Your task to perform on an android device: Add razer thresher to the cart on costco Image 0: 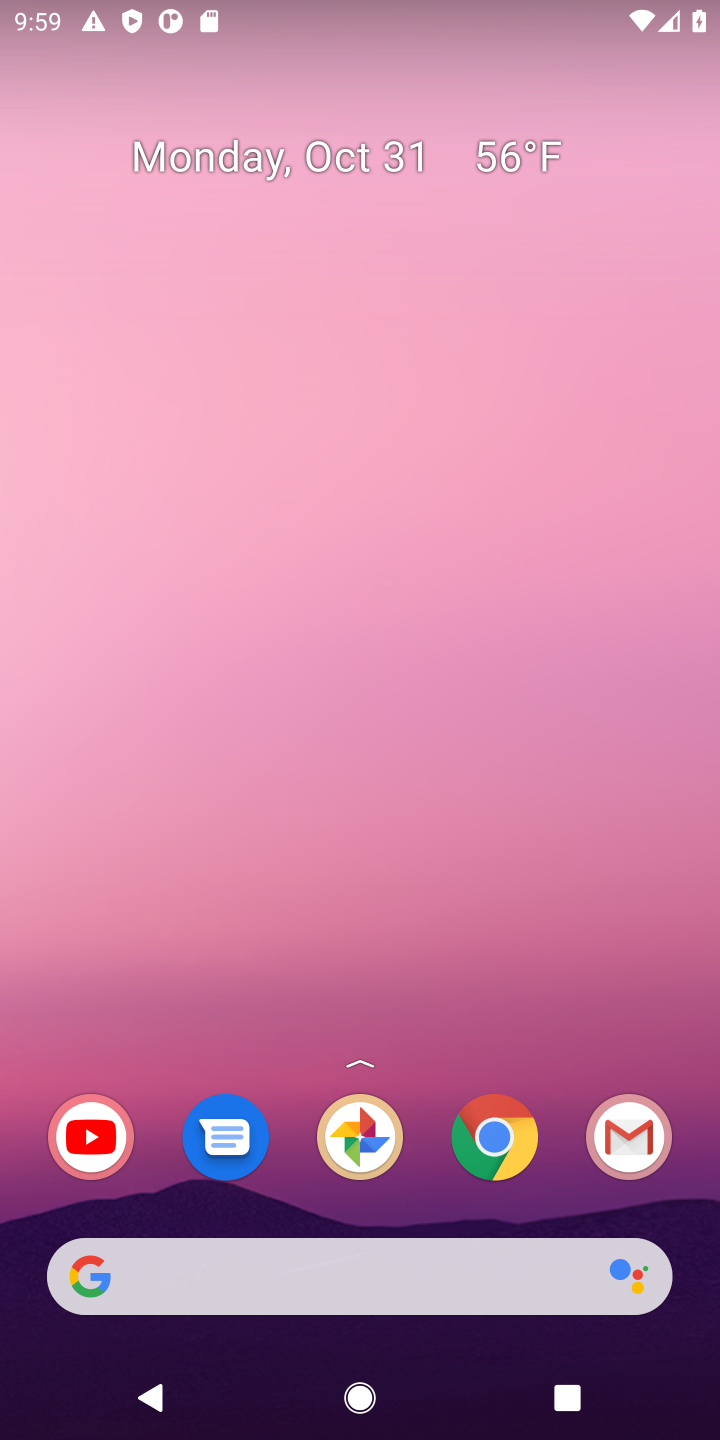
Step 0: click (497, 1140)
Your task to perform on an android device: Add razer thresher to the cart on costco Image 1: 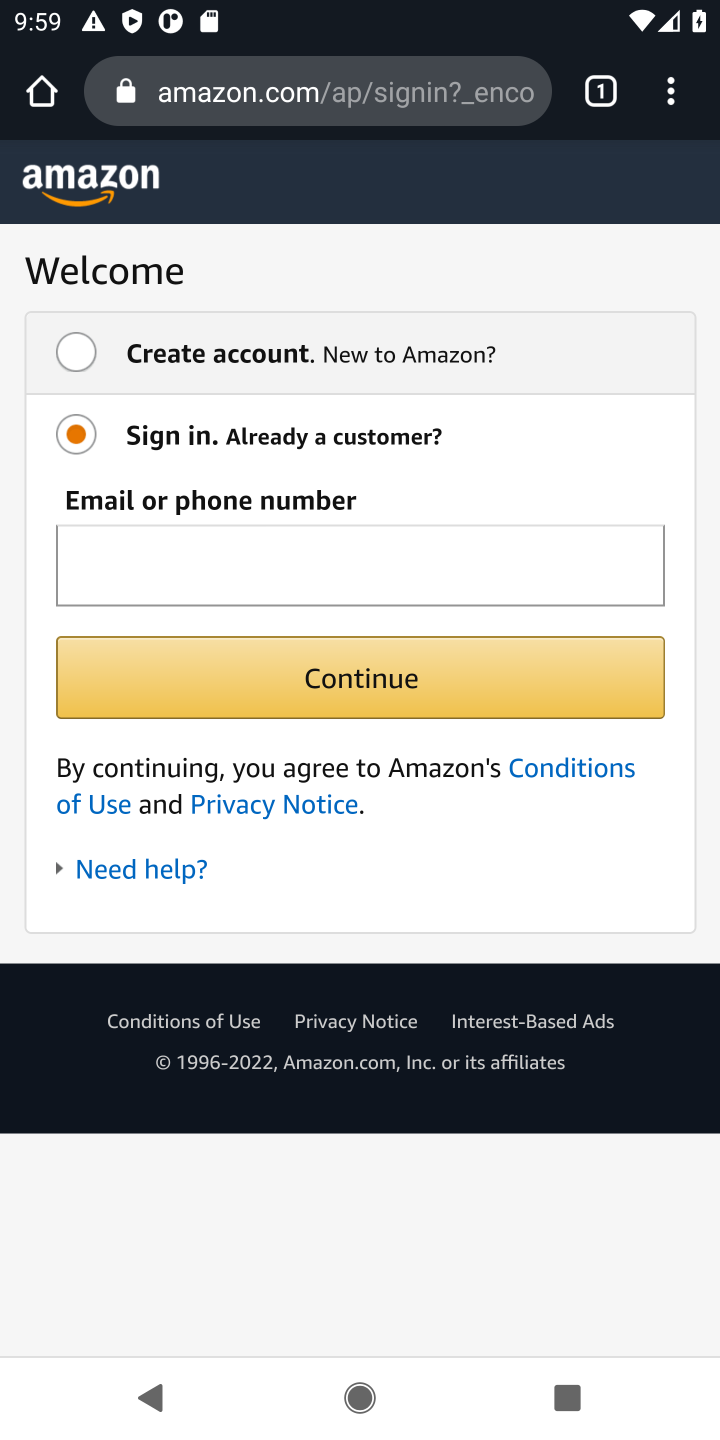
Step 1: click (427, 105)
Your task to perform on an android device: Add razer thresher to the cart on costco Image 2: 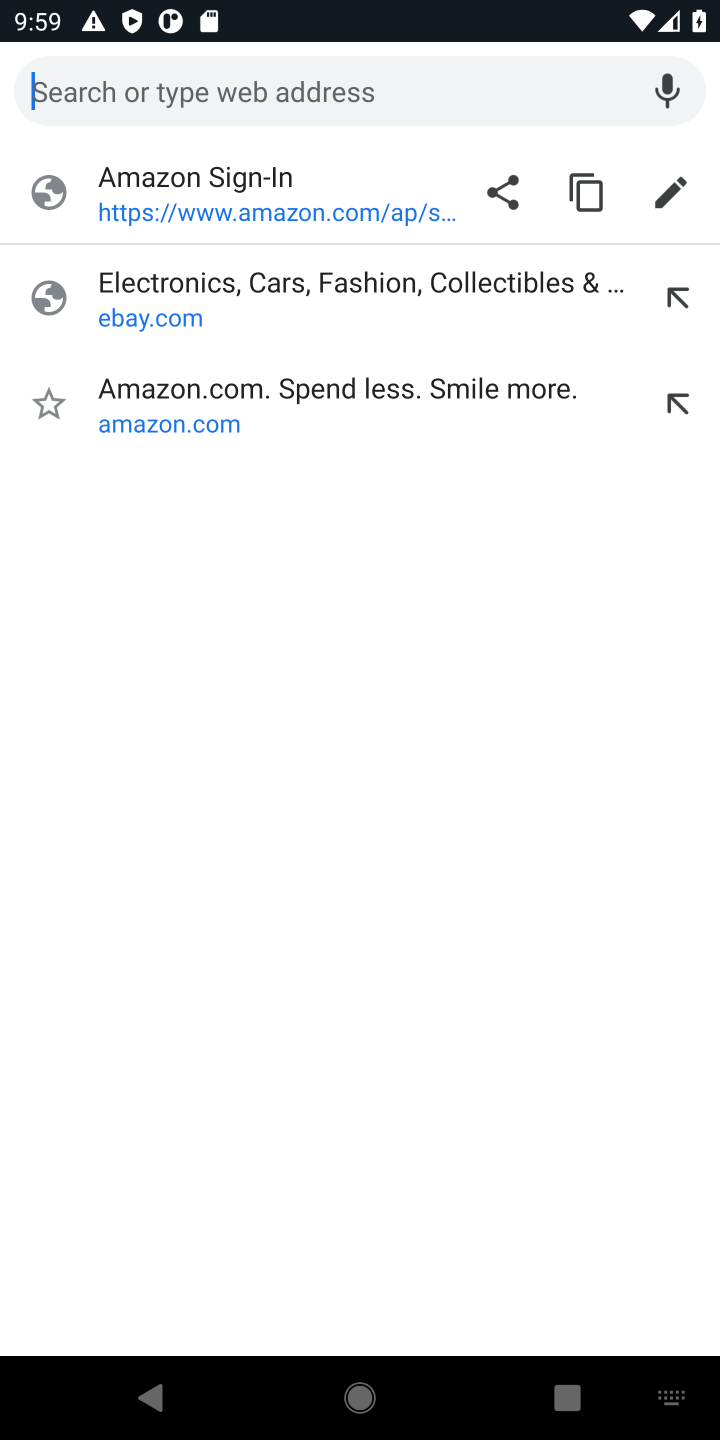
Step 2: type "coctco"
Your task to perform on an android device: Add razer thresher to the cart on costco Image 3: 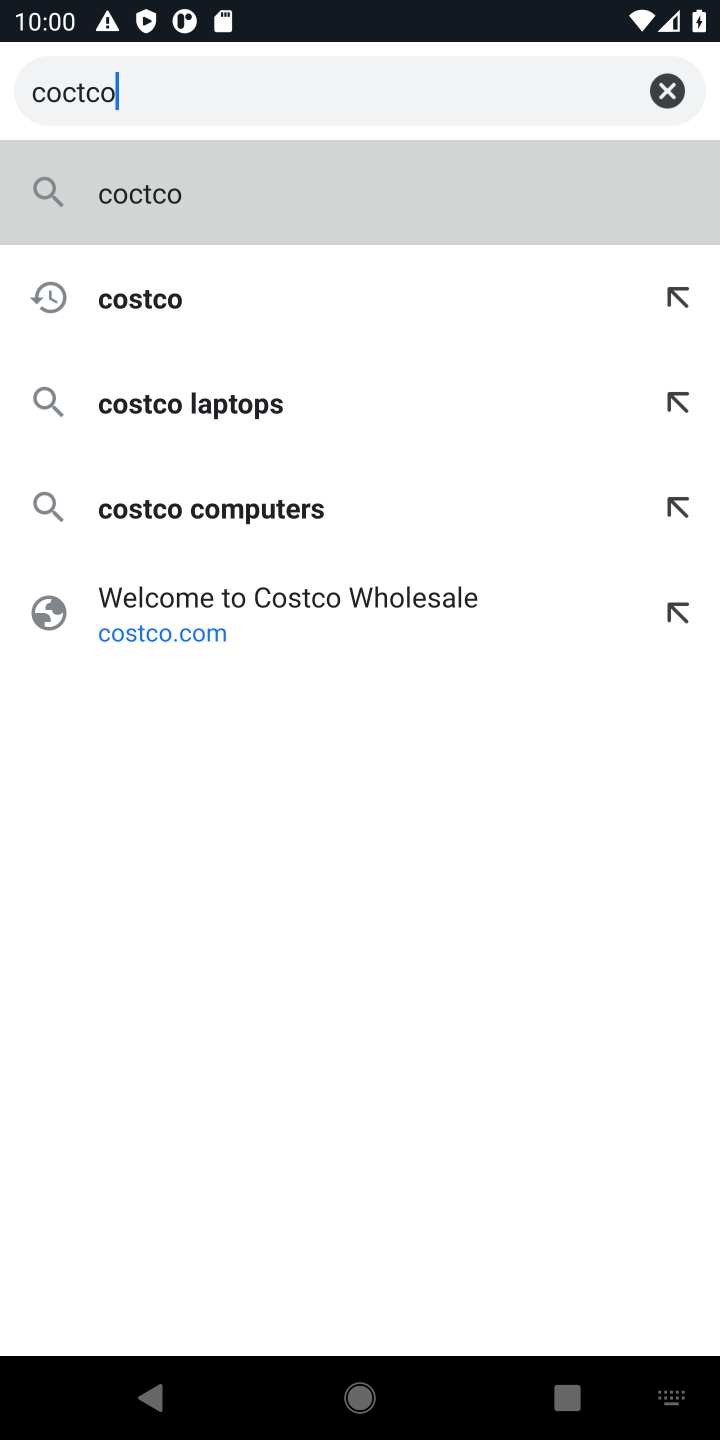
Step 3: click (671, 99)
Your task to perform on an android device: Add razer thresher to the cart on costco Image 4: 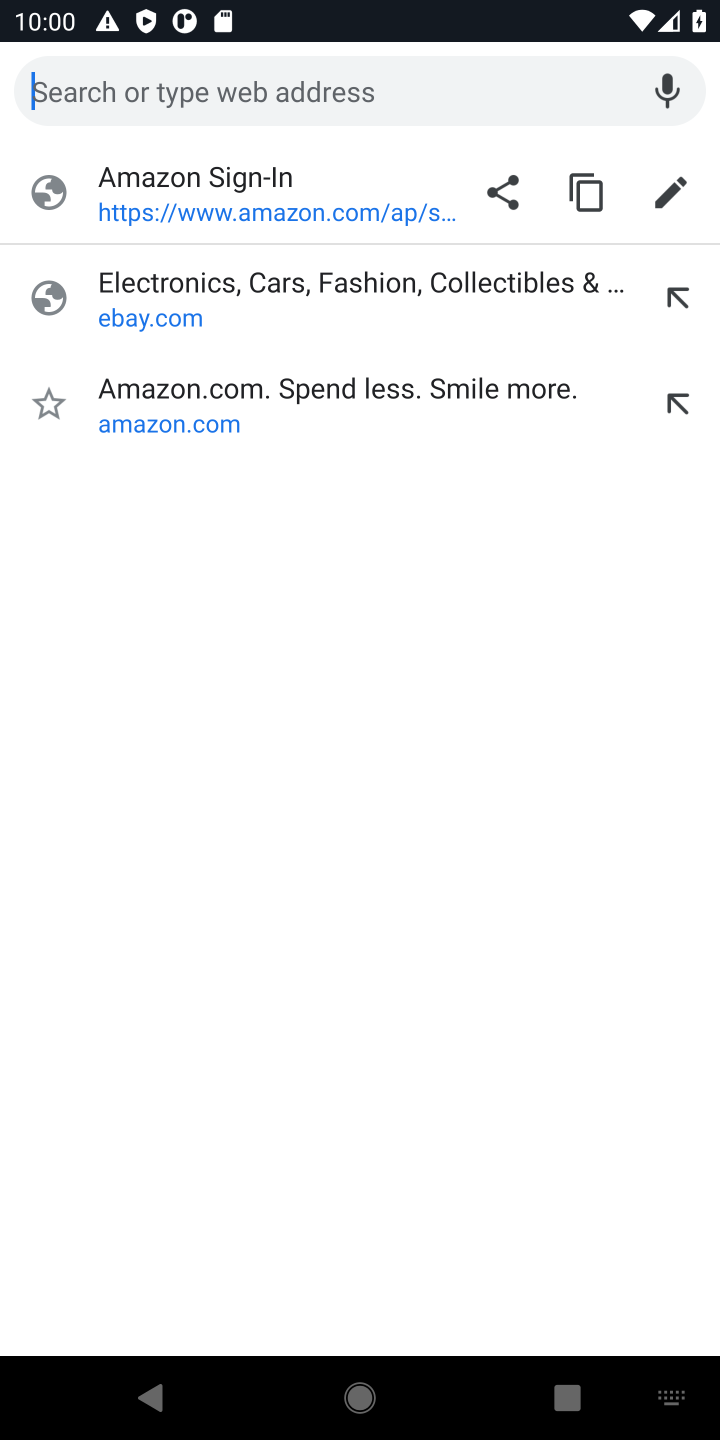
Step 4: type "costco"
Your task to perform on an android device: Add razer thresher to the cart on costco Image 5: 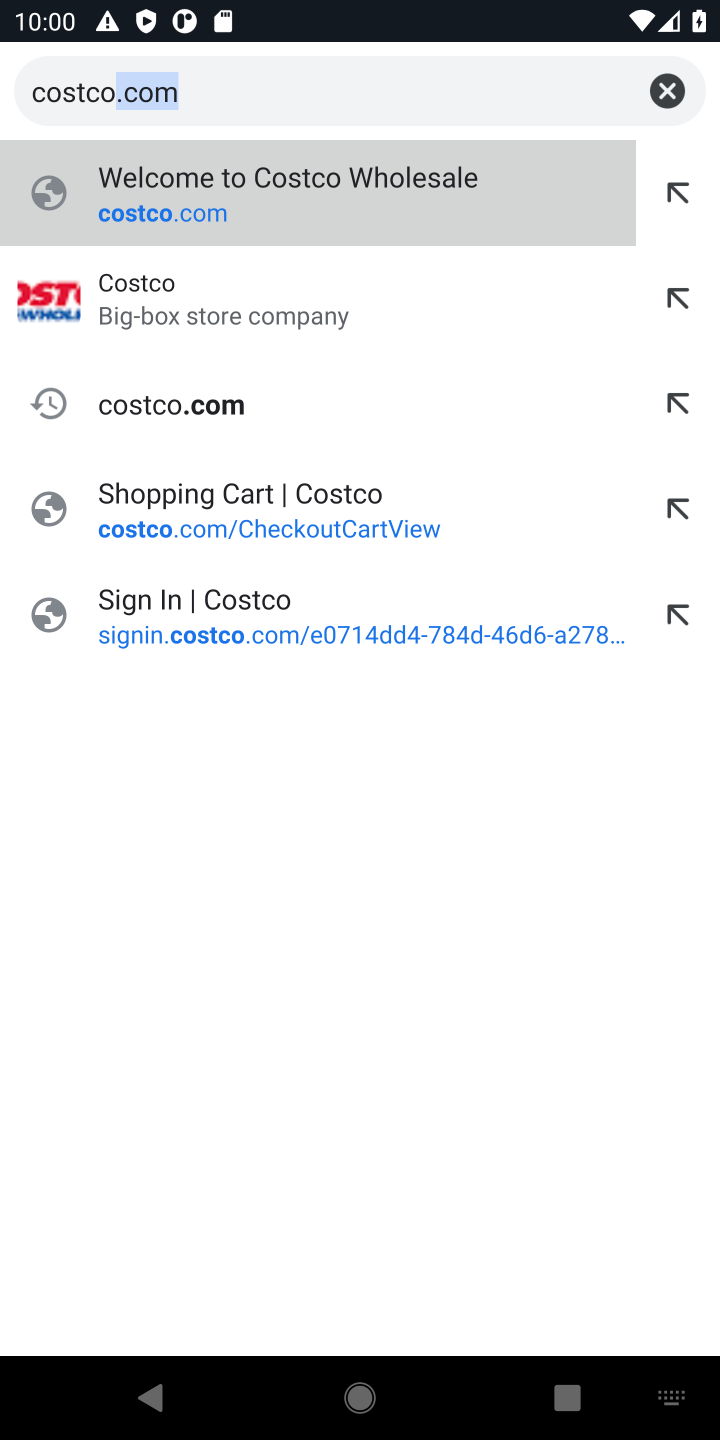
Step 5: click (91, 282)
Your task to perform on an android device: Add razer thresher to the cart on costco Image 6: 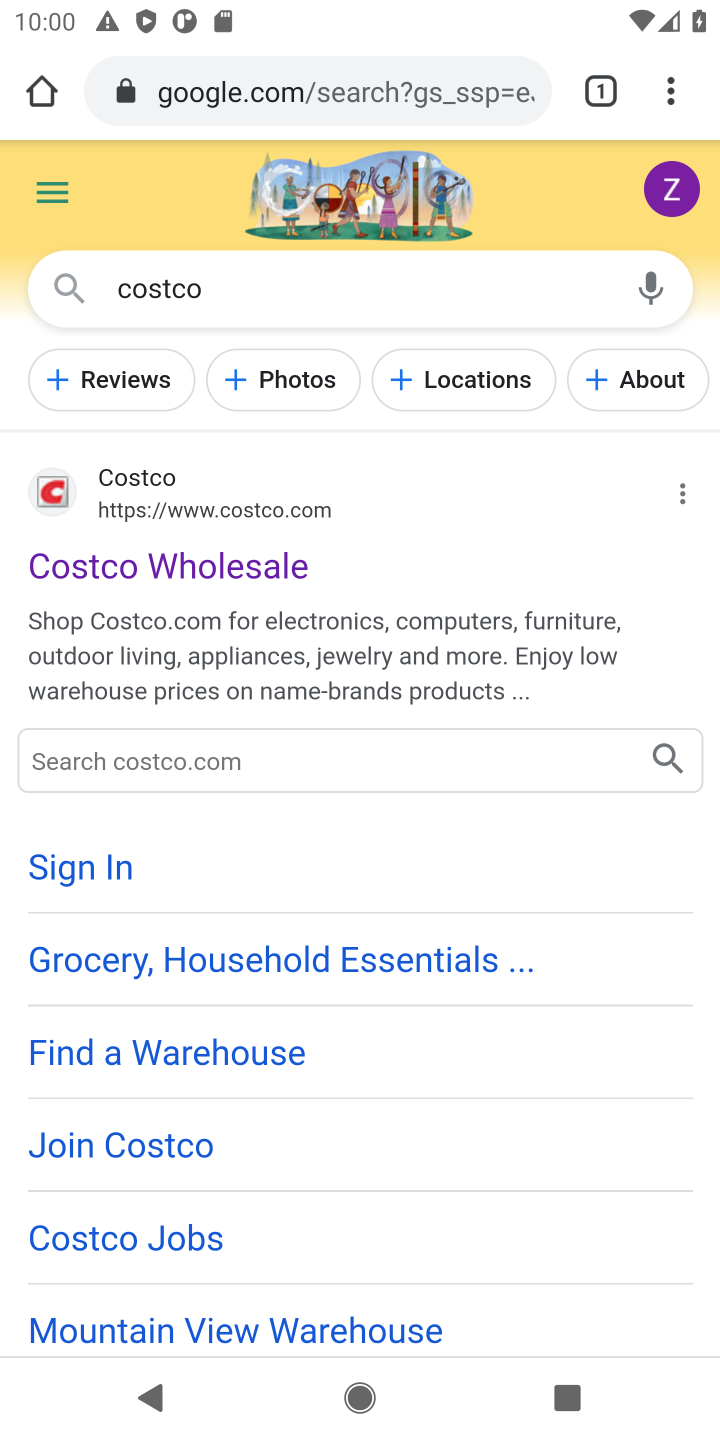
Step 6: click (212, 574)
Your task to perform on an android device: Add razer thresher to the cart on costco Image 7: 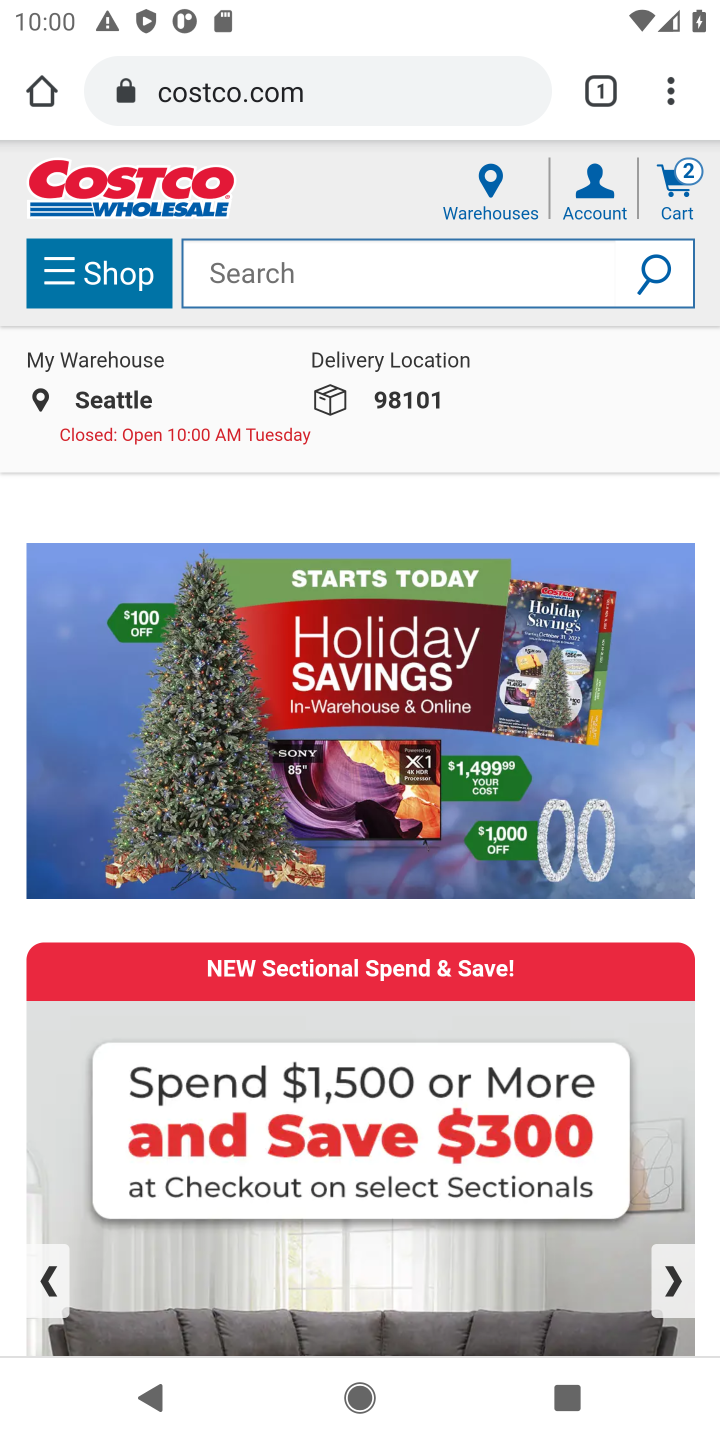
Step 7: click (495, 285)
Your task to perform on an android device: Add razer thresher to the cart on costco Image 8: 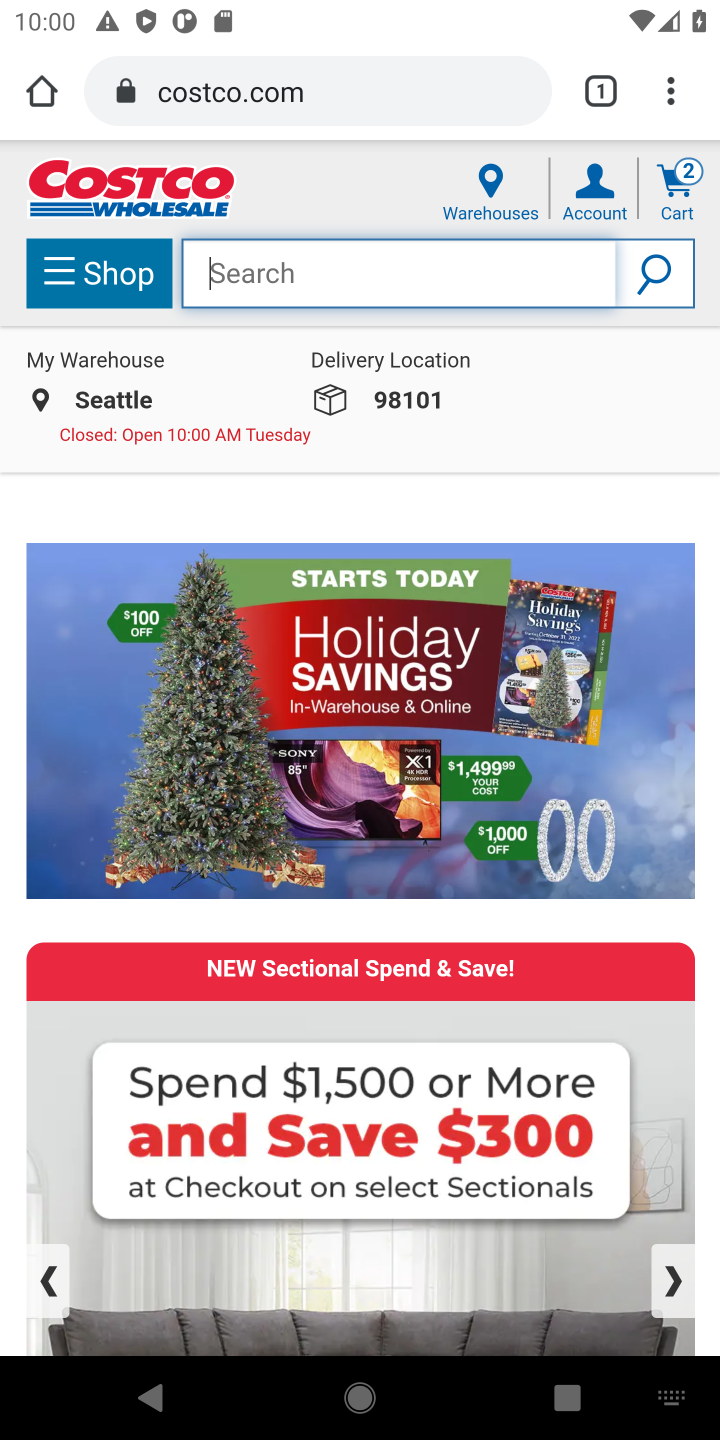
Step 8: type "razer thresher"
Your task to perform on an android device: Add razer thresher to the cart on costco Image 9: 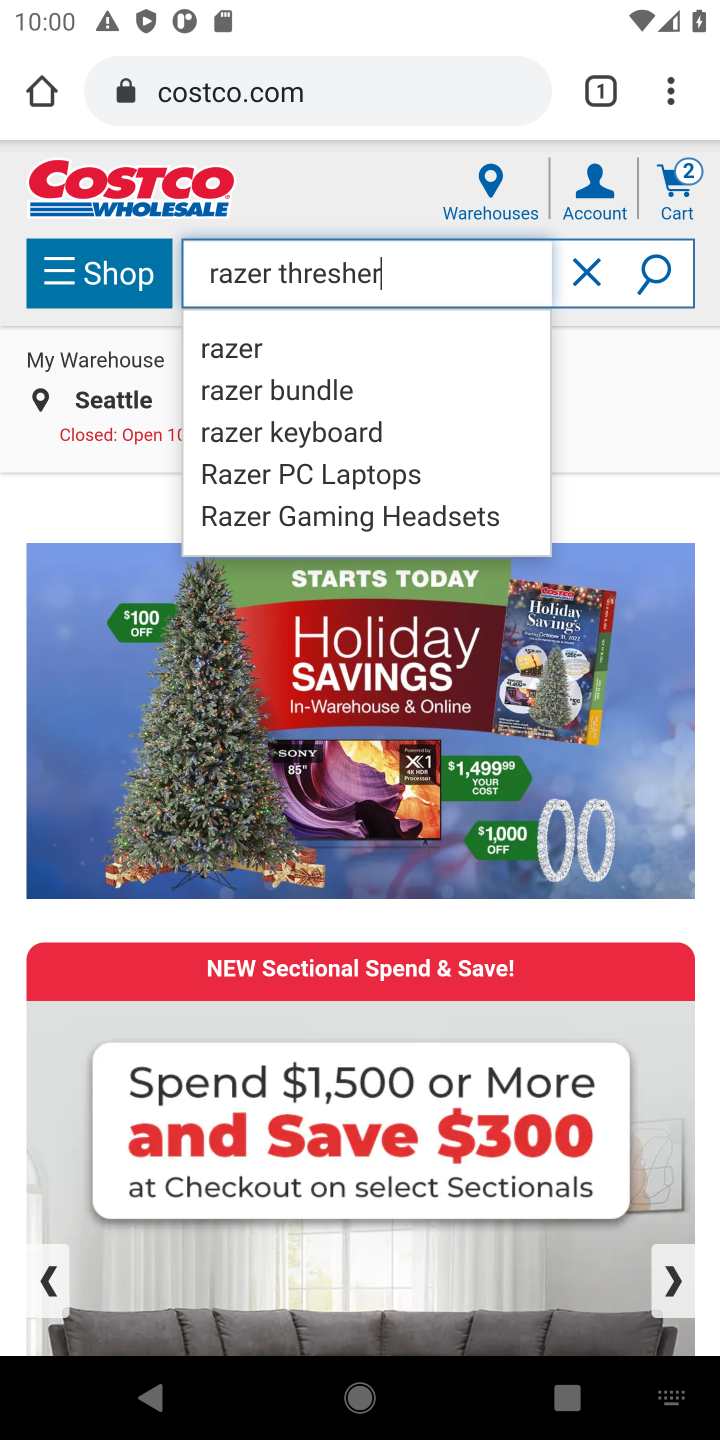
Step 9: click (649, 269)
Your task to perform on an android device: Add razer thresher to the cart on costco Image 10: 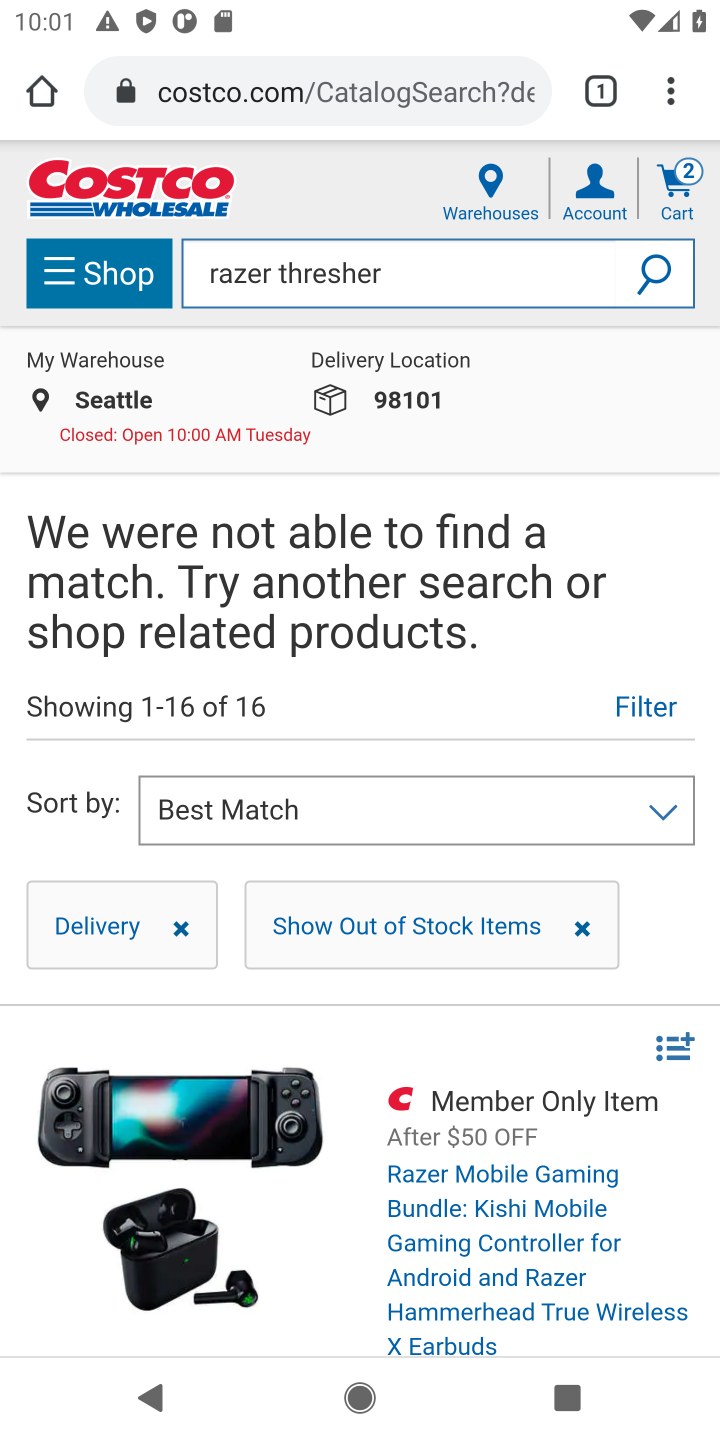
Step 10: task complete